Your task to perform on an android device: toggle notification dots Image 0: 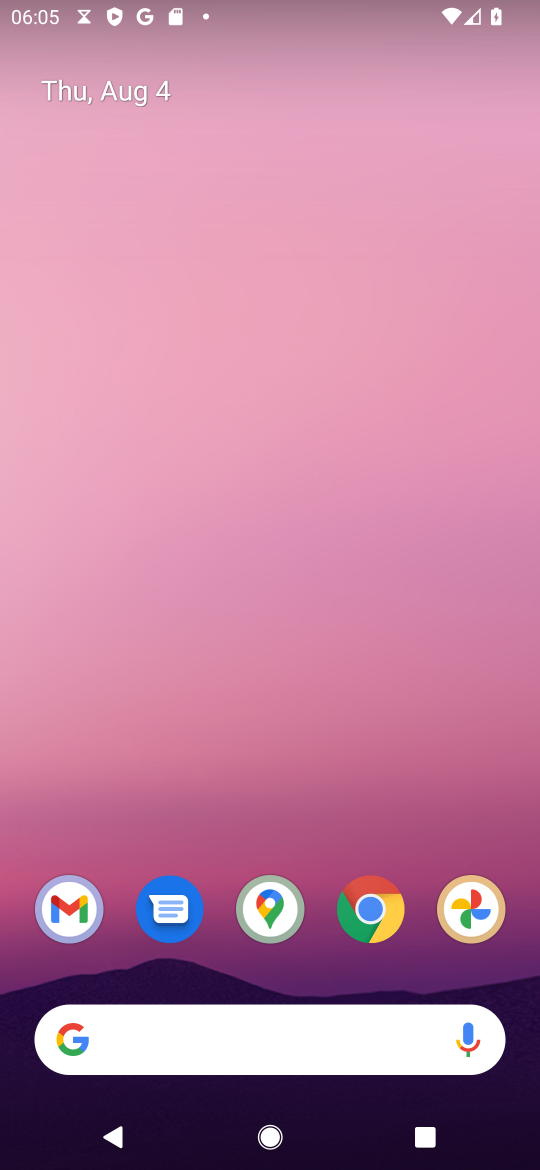
Step 0: press home button
Your task to perform on an android device: toggle notification dots Image 1: 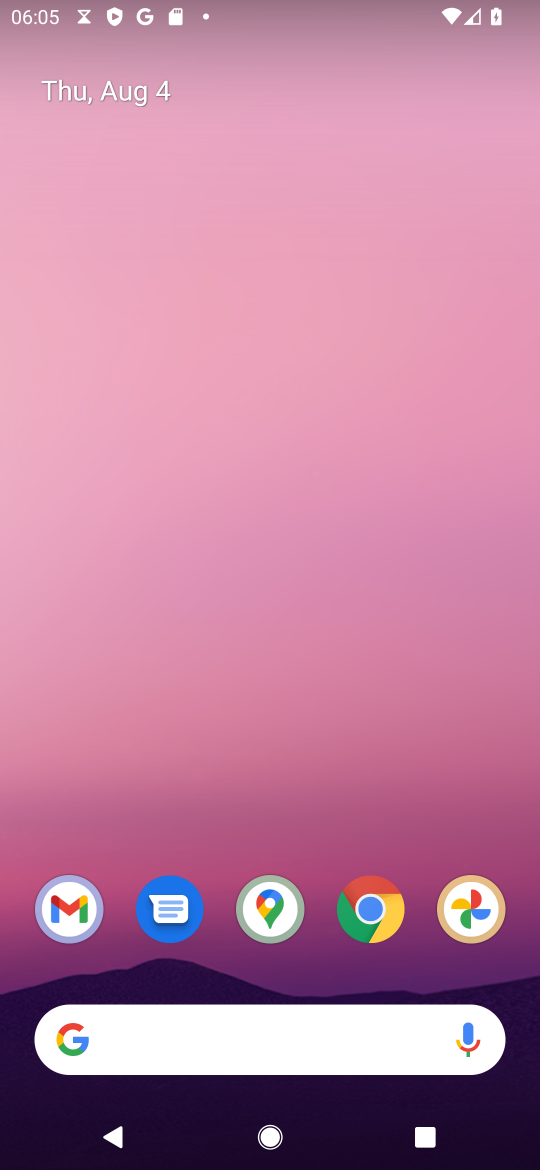
Step 1: drag from (235, 1041) to (397, 155)
Your task to perform on an android device: toggle notification dots Image 2: 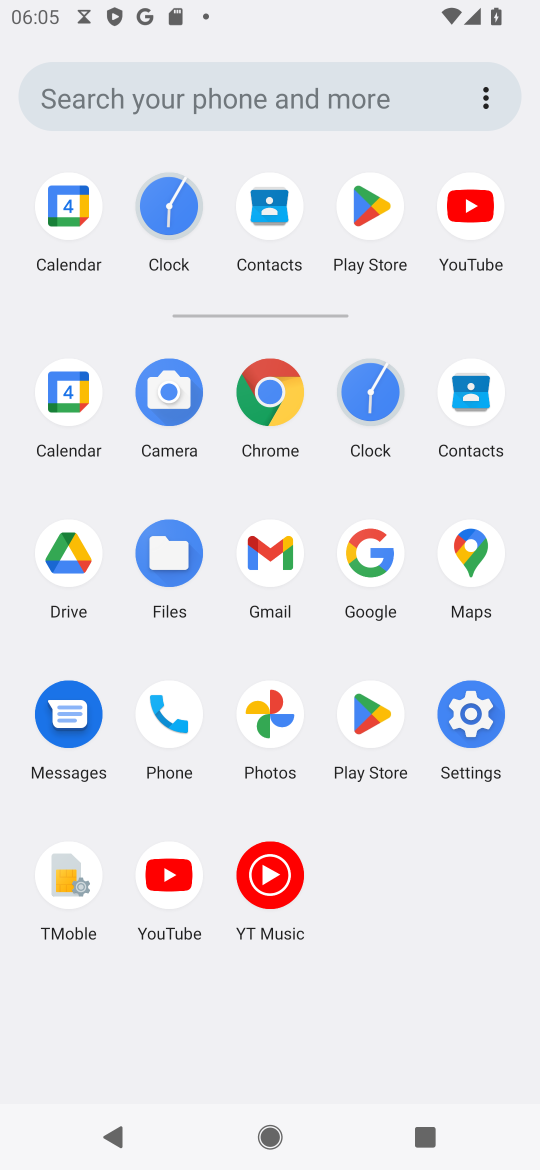
Step 2: click (462, 723)
Your task to perform on an android device: toggle notification dots Image 3: 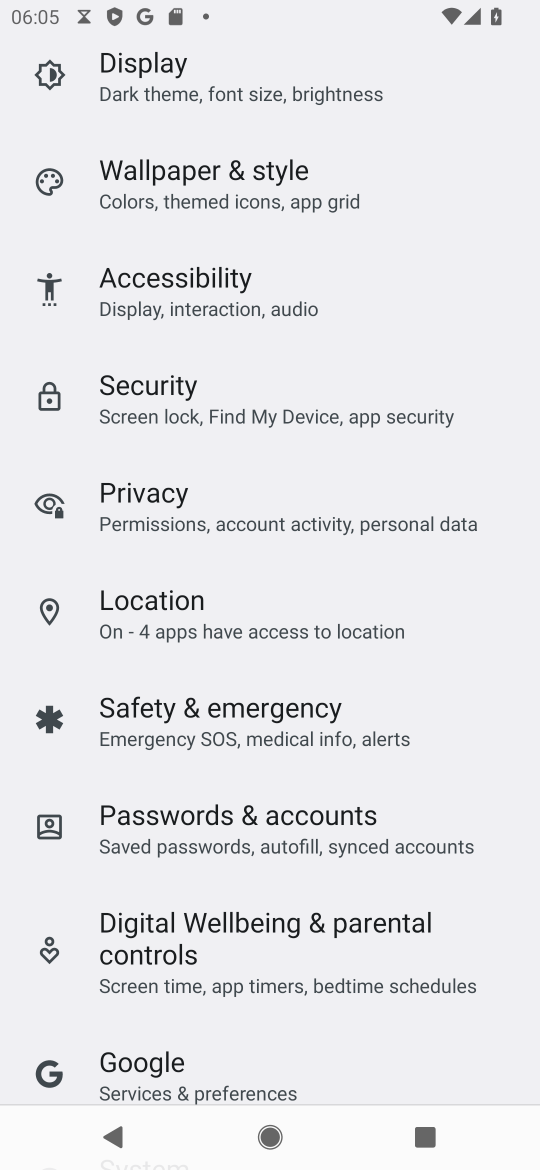
Step 3: drag from (440, 190) to (424, 944)
Your task to perform on an android device: toggle notification dots Image 4: 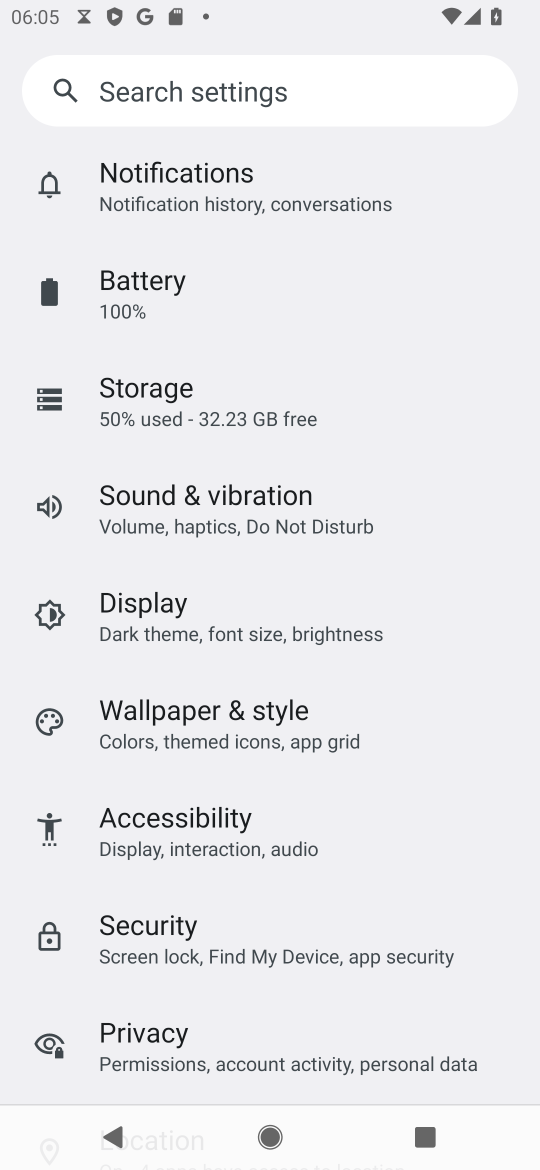
Step 4: click (229, 190)
Your task to perform on an android device: toggle notification dots Image 5: 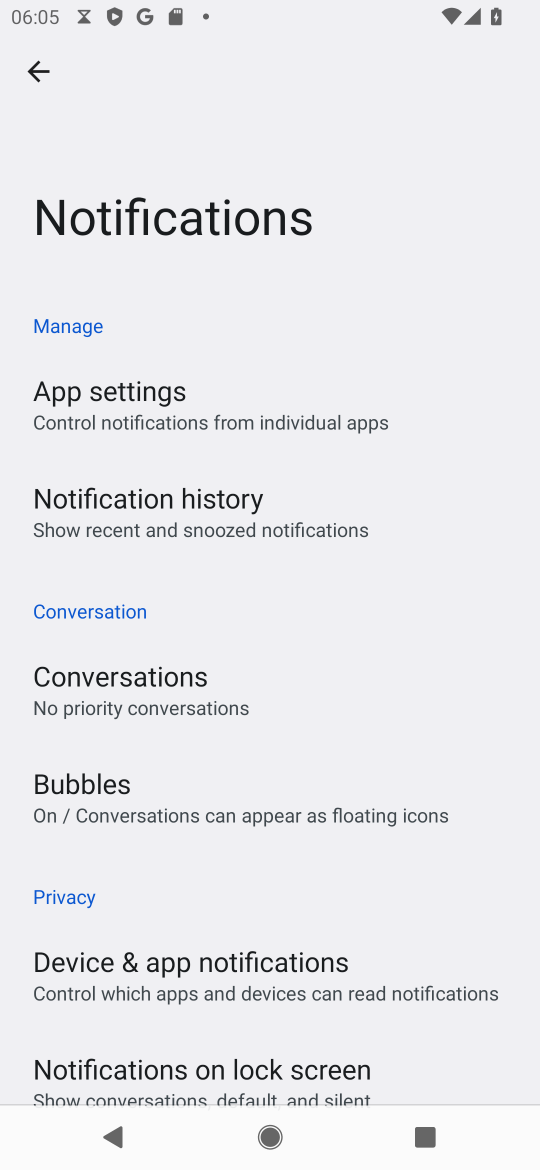
Step 5: drag from (358, 899) to (458, 105)
Your task to perform on an android device: toggle notification dots Image 6: 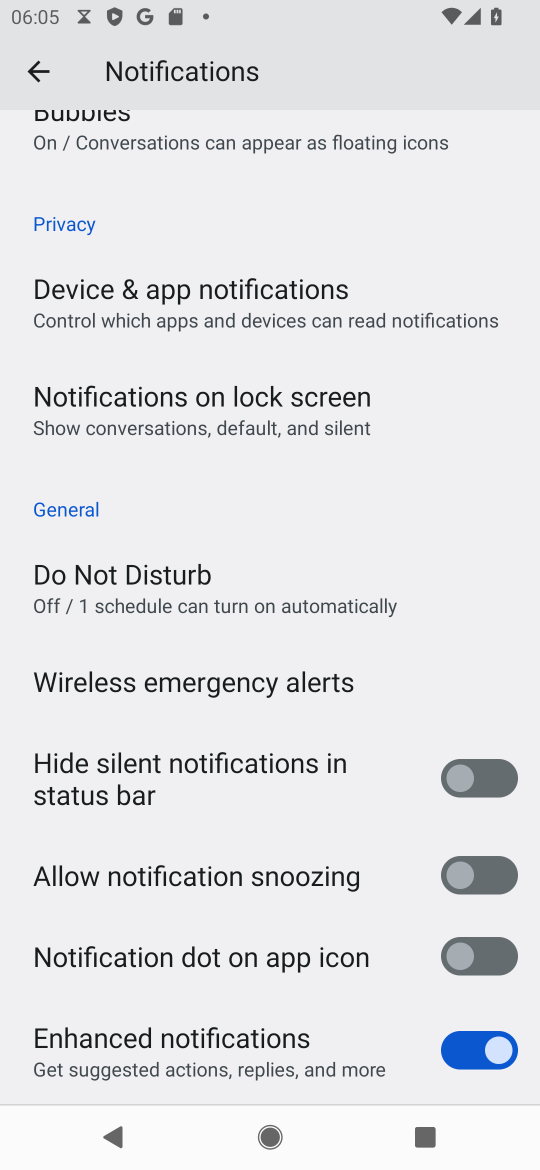
Step 6: click (488, 953)
Your task to perform on an android device: toggle notification dots Image 7: 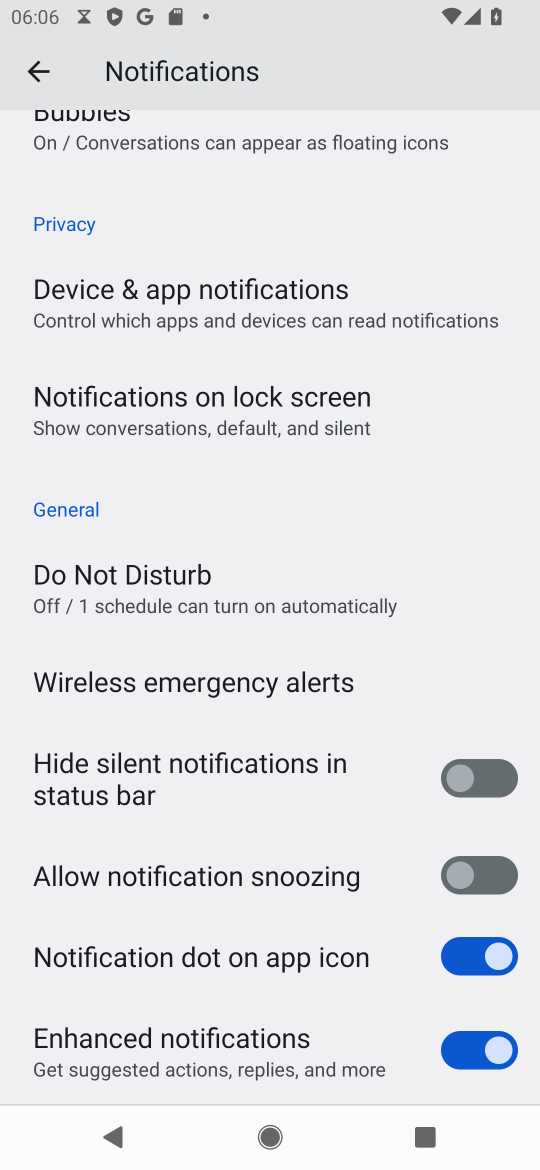
Step 7: task complete